Your task to perform on an android device: turn on location history Image 0: 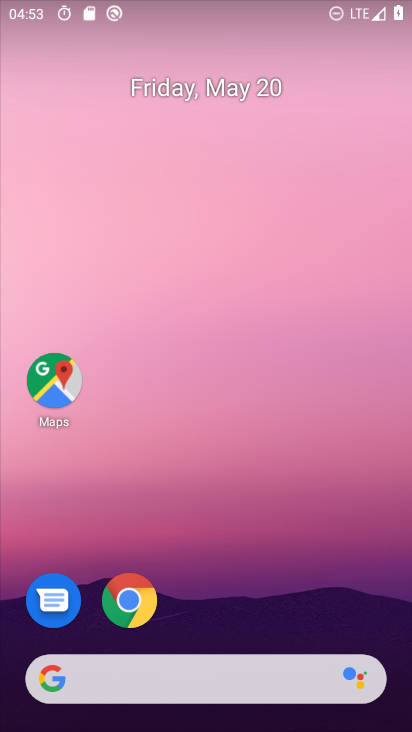
Step 0: drag from (174, 565) to (299, 101)
Your task to perform on an android device: turn on location history Image 1: 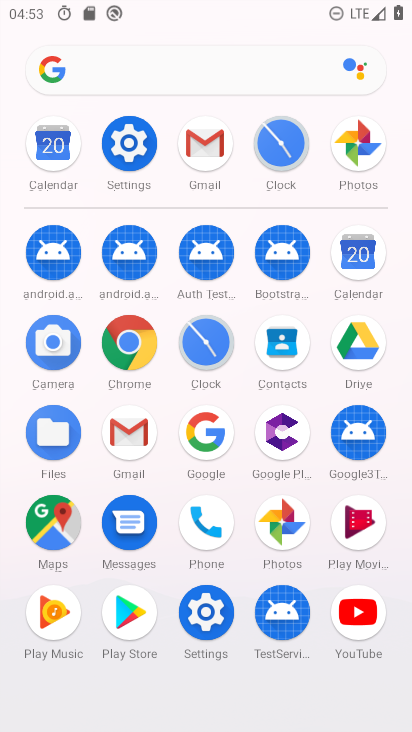
Step 1: click (131, 148)
Your task to perform on an android device: turn on location history Image 2: 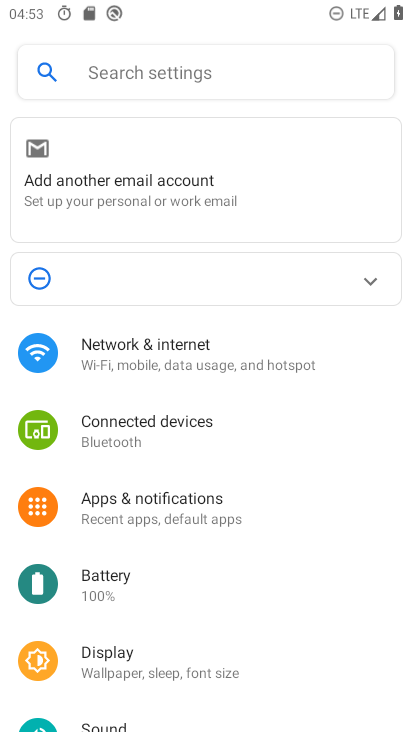
Step 2: drag from (178, 606) to (200, 199)
Your task to perform on an android device: turn on location history Image 3: 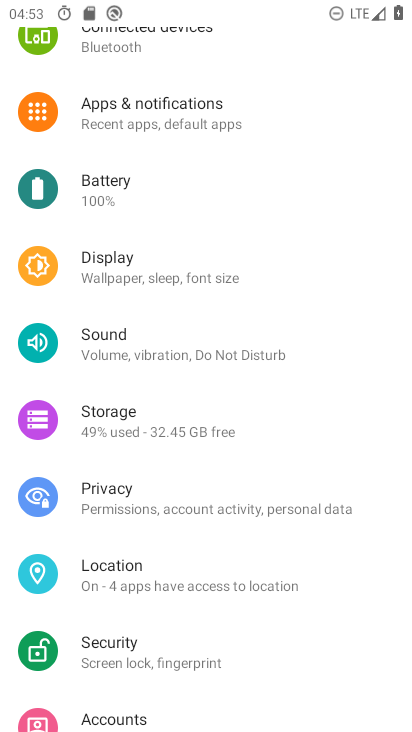
Step 3: click (120, 575)
Your task to perform on an android device: turn on location history Image 4: 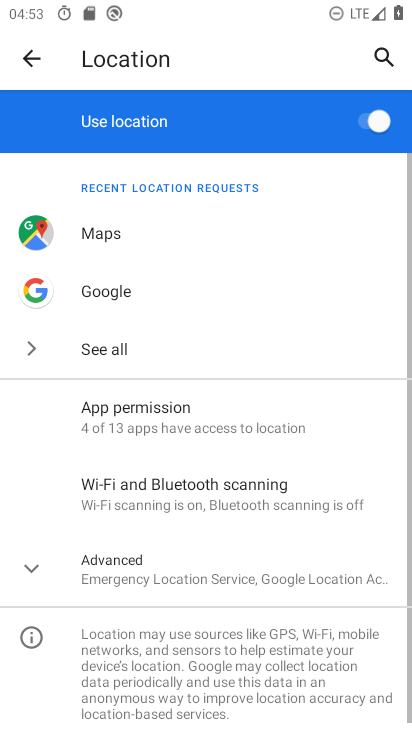
Step 4: click (192, 578)
Your task to perform on an android device: turn on location history Image 5: 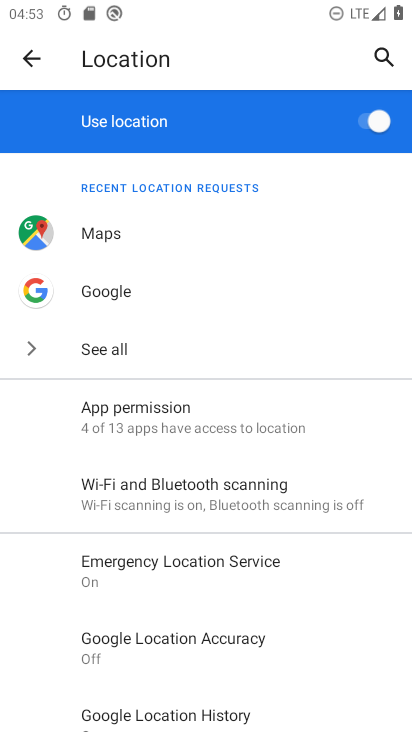
Step 5: click (223, 712)
Your task to perform on an android device: turn on location history Image 6: 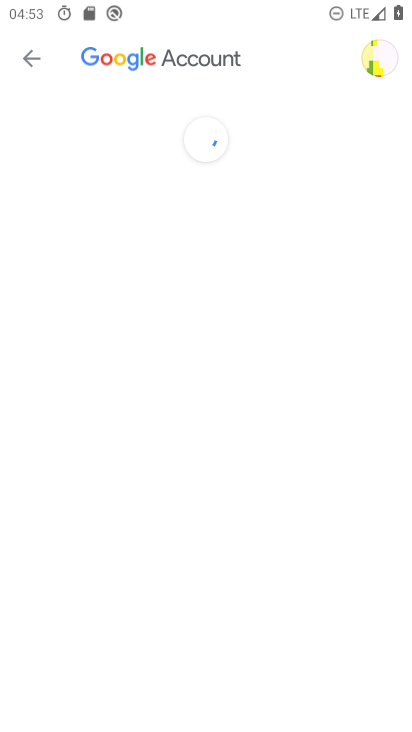
Step 6: task complete